Your task to perform on an android device: What's on my calendar tomorrow? Image 0: 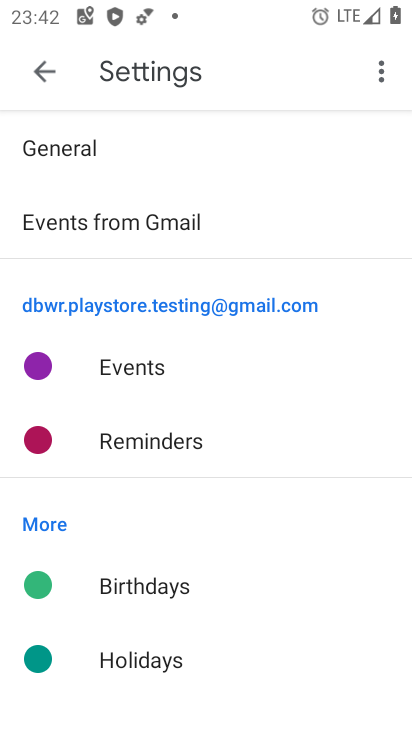
Step 0: press home button
Your task to perform on an android device: What's on my calendar tomorrow? Image 1: 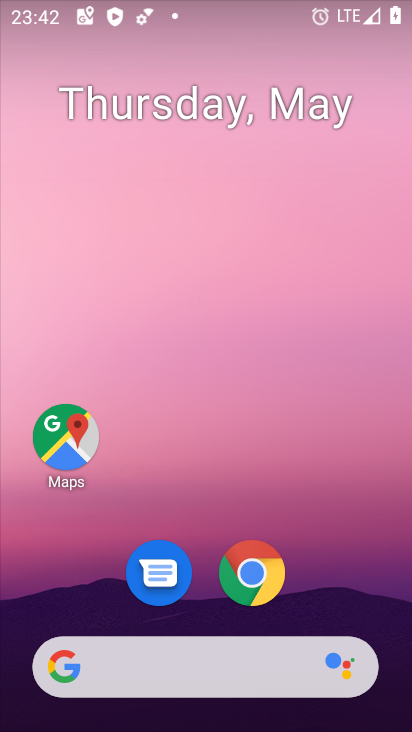
Step 1: drag from (195, 596) to (183, 218)
Your task to perform on an android device: What's on my calendar tomorrow? Image 2: 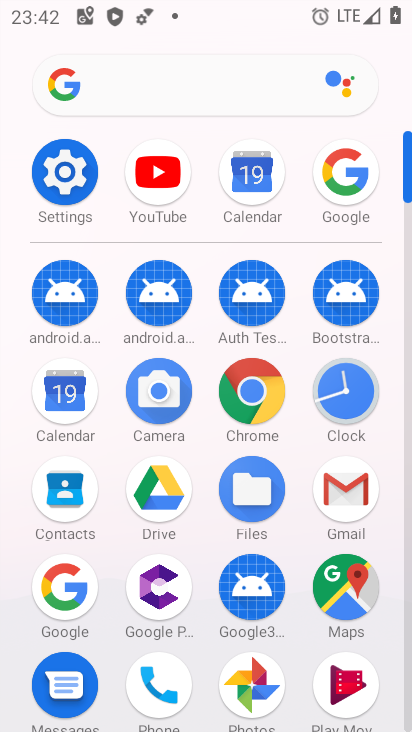
Step 2: click (77, 395)
Your task to perform on an android device: What's on my calendar tomorrow? Image 3: 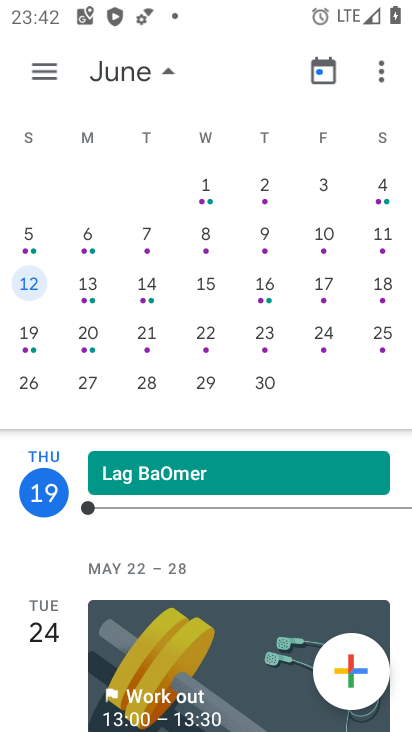
Step 3: drag from (78, 287) to (322, 257)
Your task to perform on an android device: What's on my calendar tomorrow? Image 4: 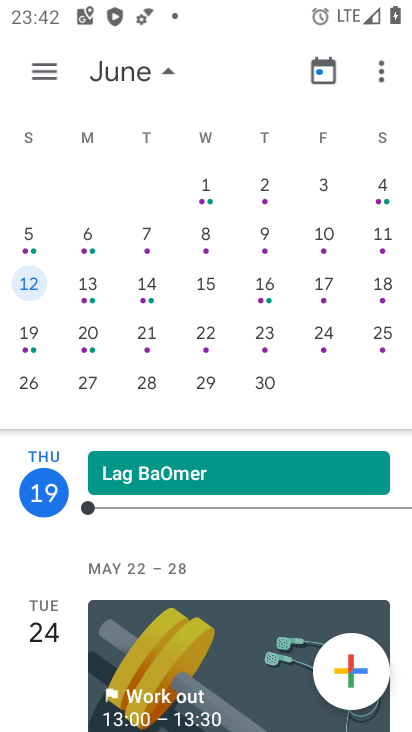
Step 4: drag from (45, 304) to (320, 280)
Your task to perform on an android device: What's on my calendar tomorrow? Image 5: 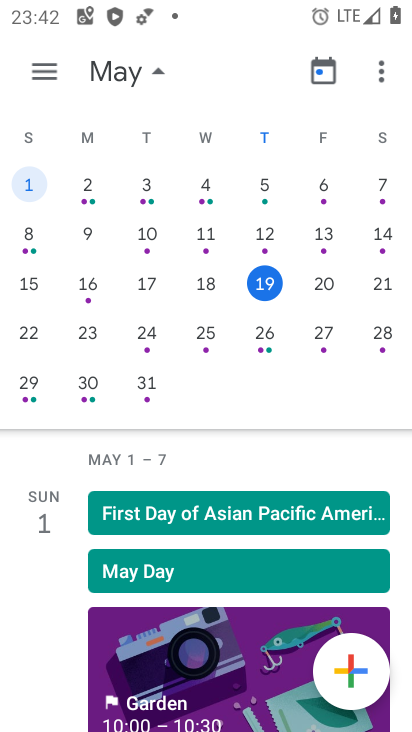
Step 5: click (305, 279)
Your task to perform on an android device: What's on my calendar tomorrow? Image 6: 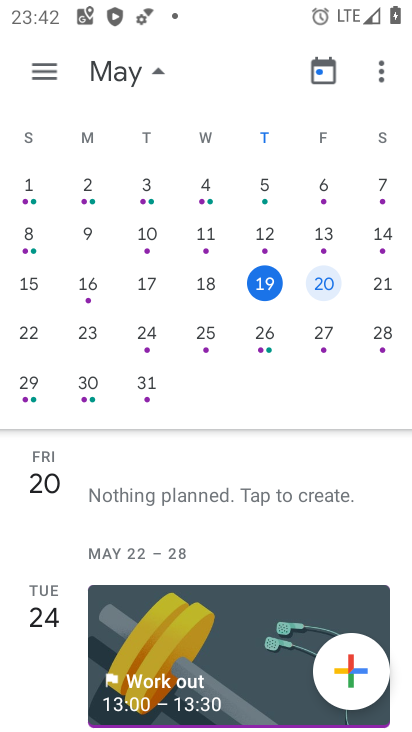
Step 6: click (324, 292)
Your task to perform on an android device: What's on my calendar tomorrow? Image 7: 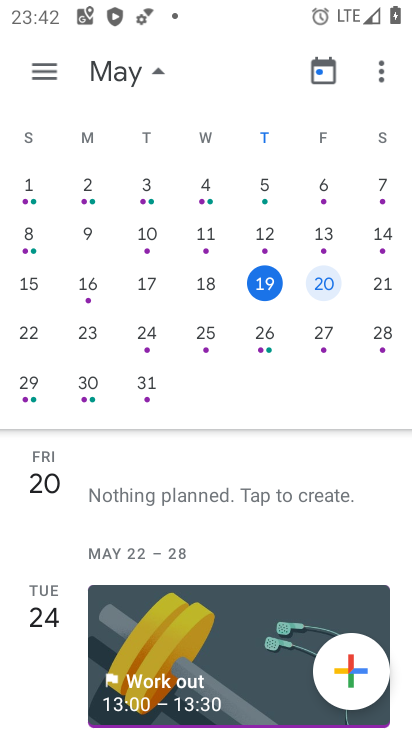
Step 7: task complete